Your task to perform on an android device: toggle javascript in the chrome app Image 0: 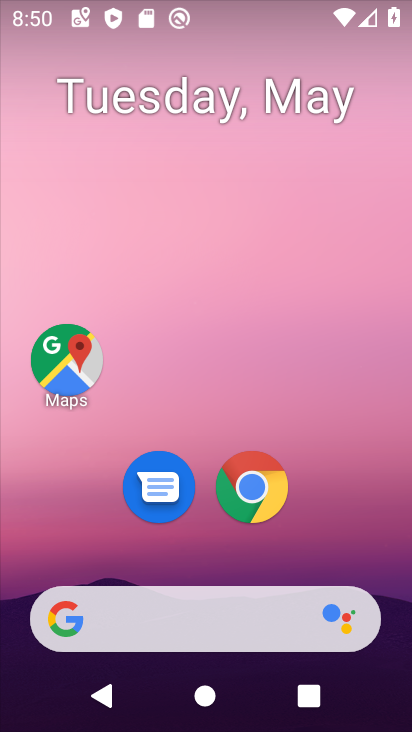
Step 0: drag from (381, 531) to (355, 106)
Your task to perform on an android device: toggle javascript in the chrome app Image 1: 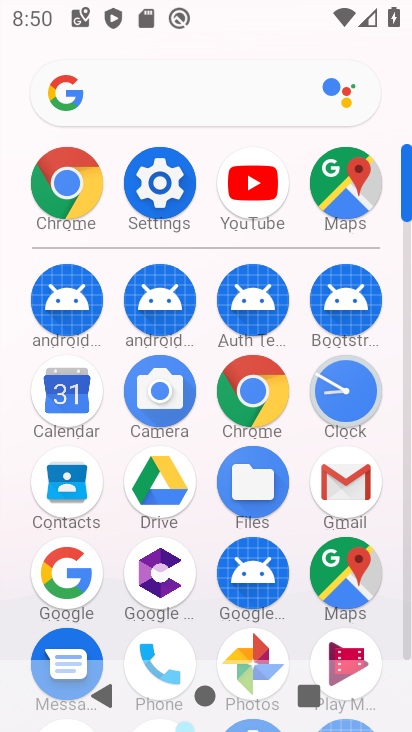
Step 1: click (275, 401)
Your task to perform on an android device: toggle javascript in the chrome app Image 2: 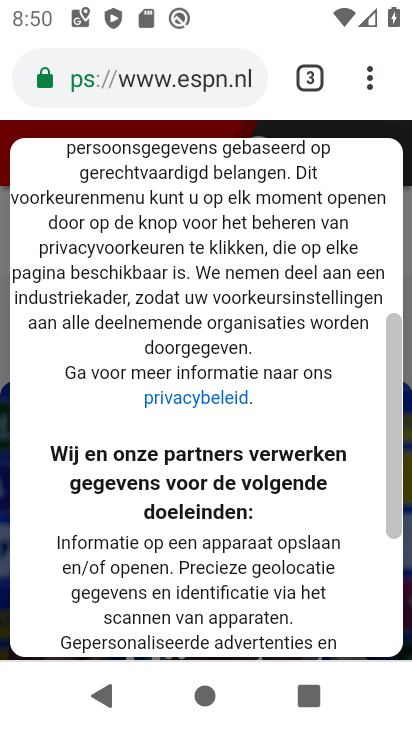
Step 2: click (368, 90)
Your task to perform on an android device: toggle javascript in the chrome app Image 3: 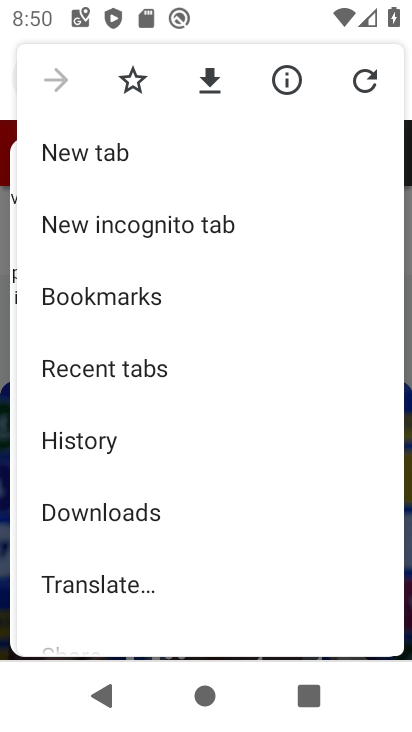
Step 3: drag from (337, 388) to (335, 308)
Your task to perform on an android device: toggle javascript in the chrome app Image 4: 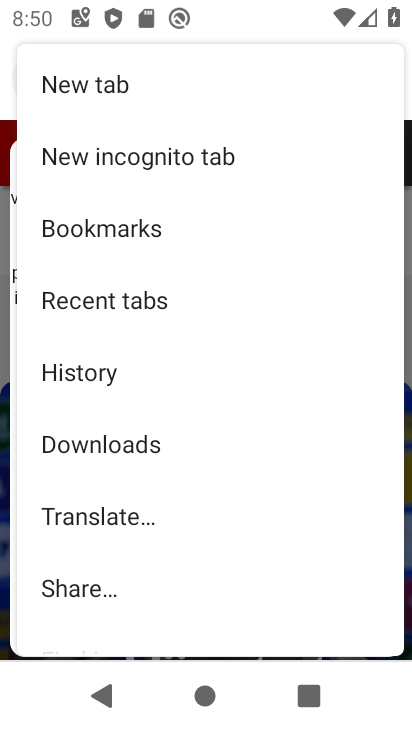
Step 4: drag from (338, 443) to (334, 348)
Your task to perform on an android device: toggle javascript in the chrome app Image 5: 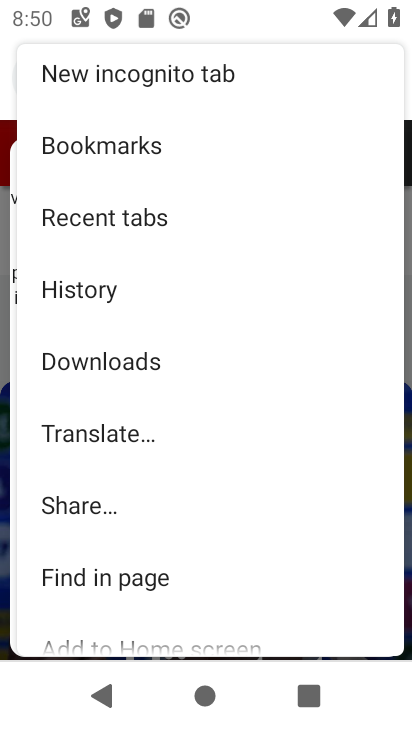
Step 5: drag from (328, 455) to (328, 355)
Your task to perform on an android device: toggle javascript in the chrome app Image 6: 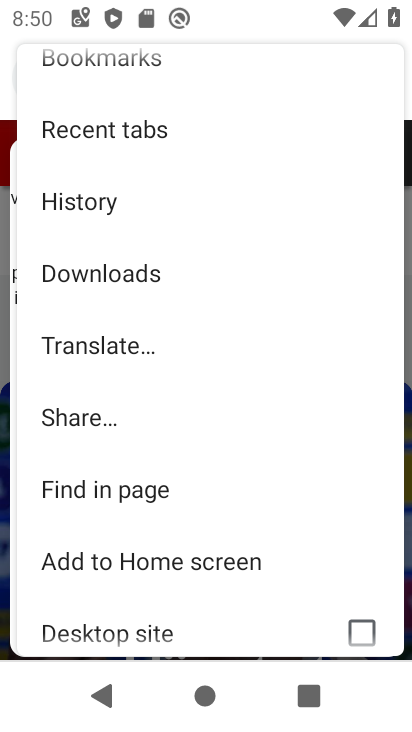
Step 6: drag from (320, 488) to (317, 369)
Your task to perform on an android device: toggle javascript in the chrome app Image 7: 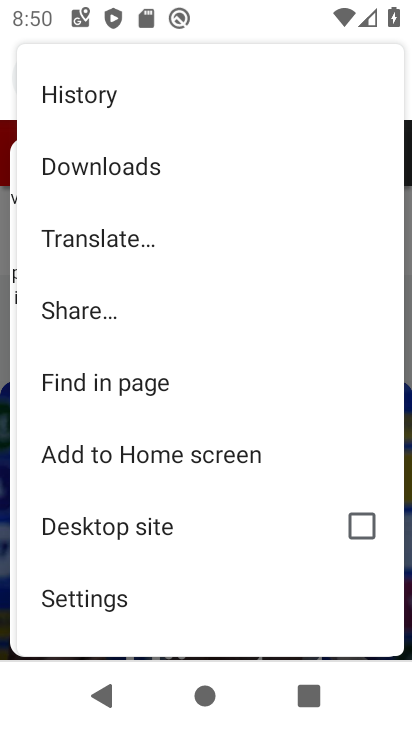
Step 7: drag from (313, 495) to (317, 391)
Your task to perform on an android device: toggle javascript in the chrome app Image 8: 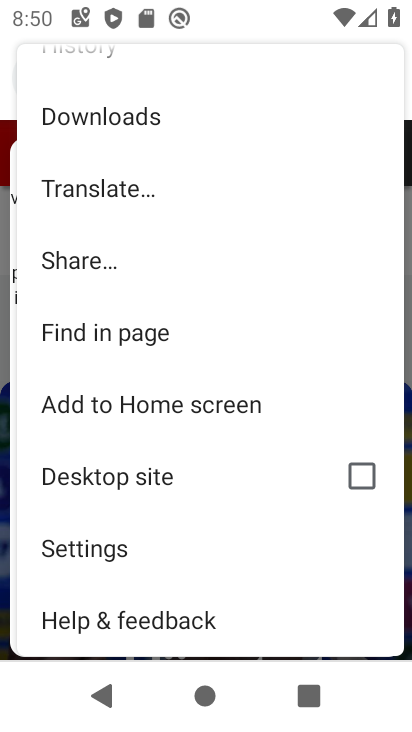
Step 8: click (144, 555)
Your task to perform on an android device: toggle javascript in the chrome app Image 9: 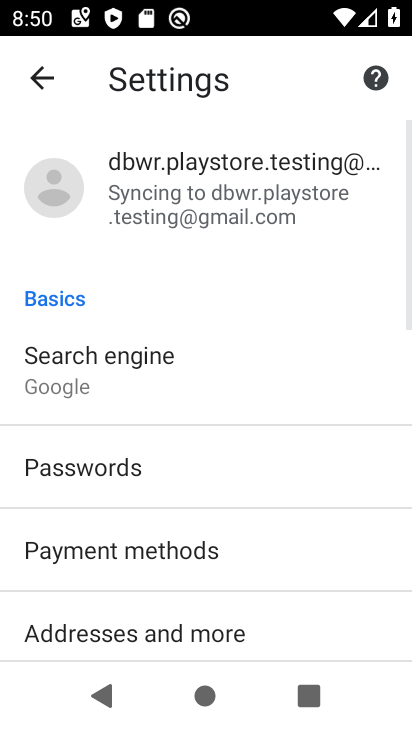
Step 9: drag from (319, 553) to (319, 473)
Your task to perform on an android device: toggle javascript in the chrome app Image 10: 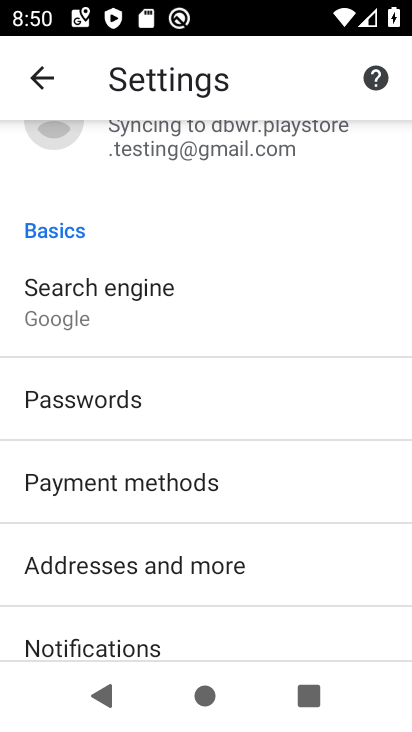
Step 10: drag from (334, 545) to (337, 441)
Your task to perform on an android device: toggle javascript in the chrome app Image 11: 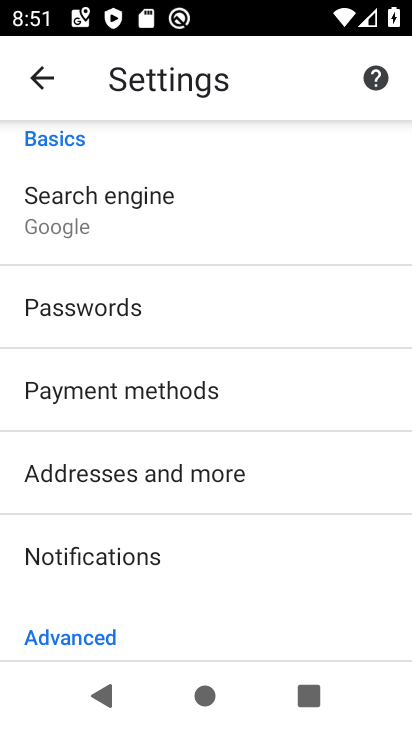
Step 11: drag from (336, 527) to (339, 451)
Your task to perform on an android device: toggle javascript in the chrome app Image 12: 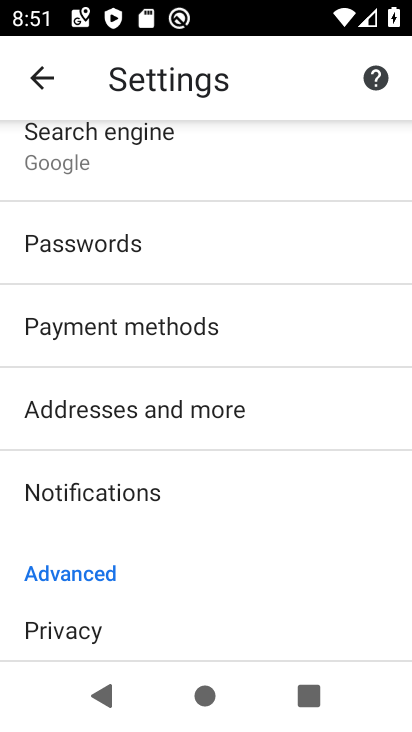
Step 12: drag from (337, 548) to (344, 445)
Your task to perform on an android device: toggle javascript in the chrome app Image 13: 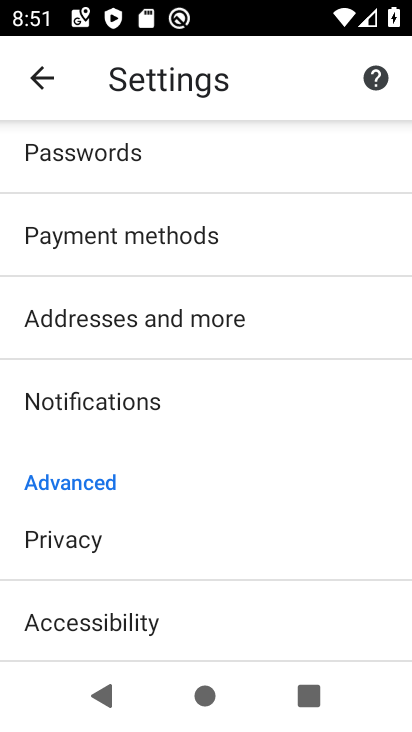
Step 13: drag from (357, 559) to (349, 456)
Your task to perform on an android device: toggle javascript in the chrome app Image 14: 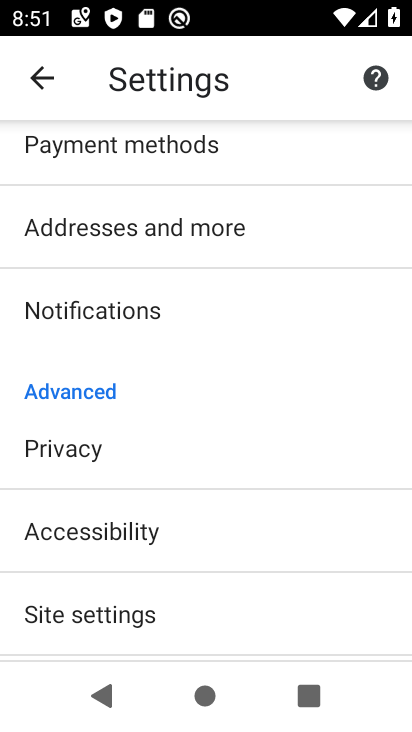
Step 14: drag from (358, 573) to (369, 470)
Your task to perform on an android device: toggle javascript in the chrome app Image 15: 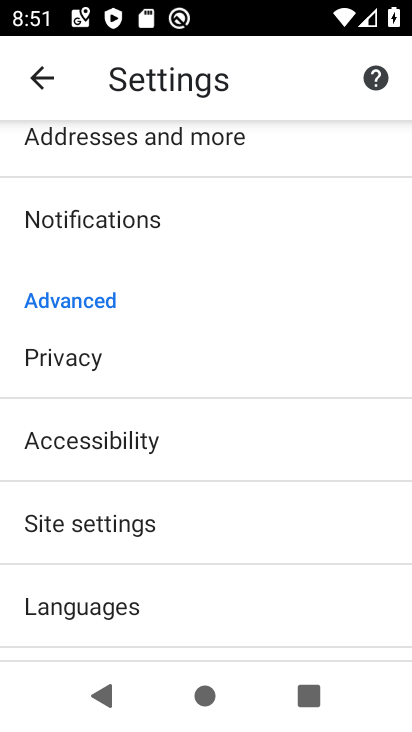
Step 15: drag from (367, 593) to (368, 488)
Your task to perform on an android device: toggle javascript in the chrome app Image 16: 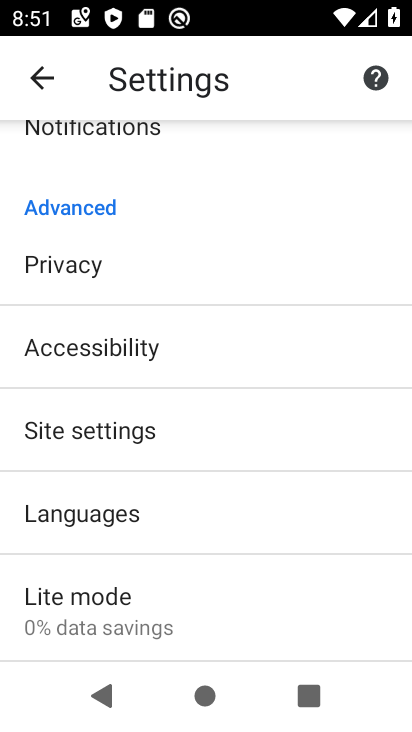
Step 16: click (219, 428)
Your task to perform on an android device: toggle javascript in the chrome app Image 17: 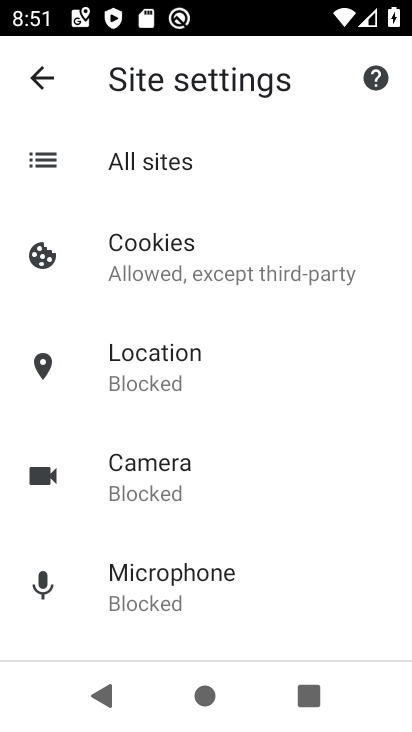
Step 17: drag from (331, 523) to (329, 439)
Your task to perform on an android device: toggle javascript in the chrome app Image 18: 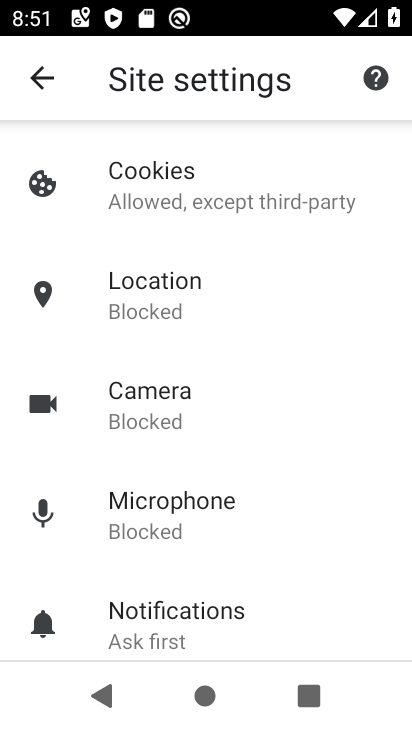
Step 18: drag from (323, 541) to (325, 439)
Your task to perform on an android device: toggle javascript in the chrome app Image 19: 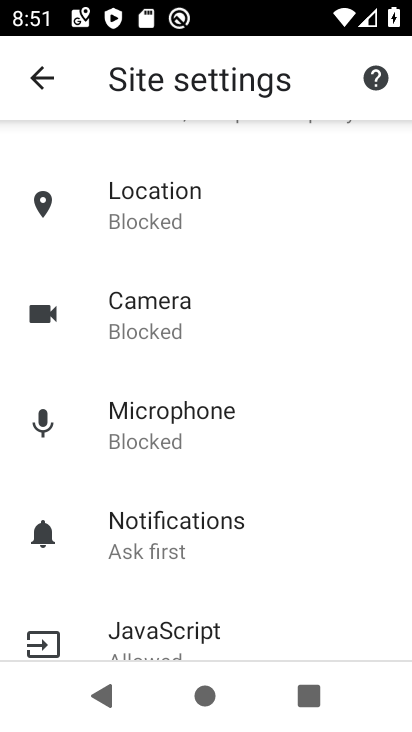
Step 19: drag from (345, 547) to (334, 444)
Your task to perform on an android device: toggle javascript in the chrome app Image 20: 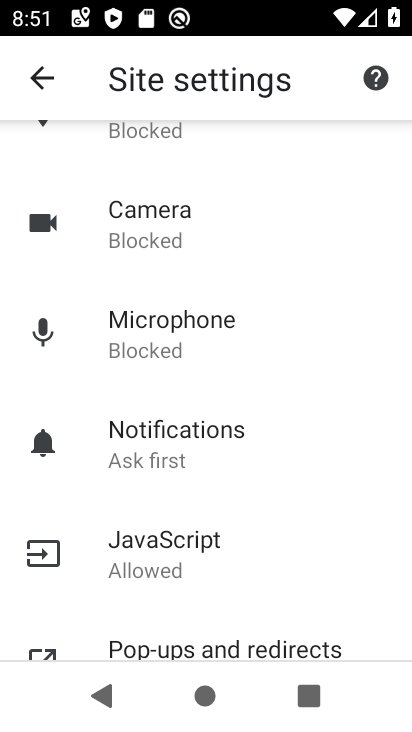
Step 20: drag from (348, 550) to (345, 420)
Your task to perform on an android device: toggle javascript in the chrome app Image 21: 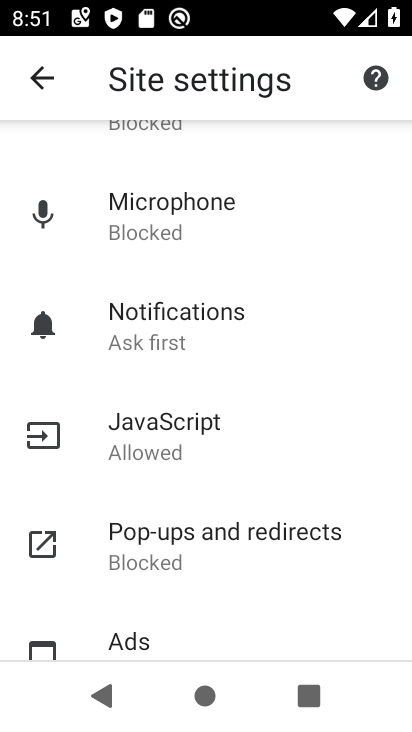
Step 21: click (191, 438)
Your task to perform on an android device: toggle javascript in the chrome app Image 22: 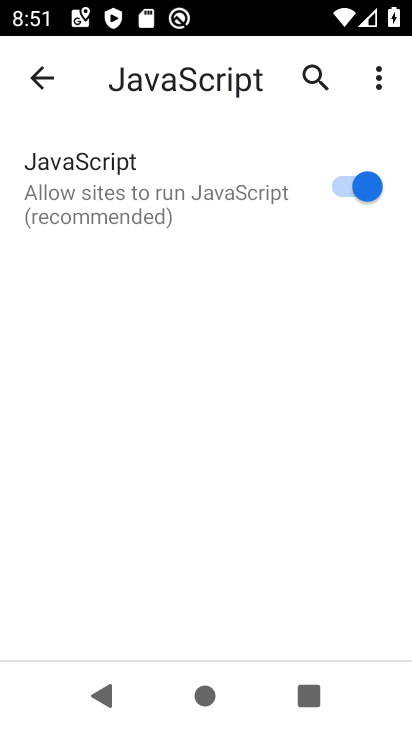
Step 22: click (374, 192)
Your task to perform on an android device: toggle javascript in the chrome app Image 23: 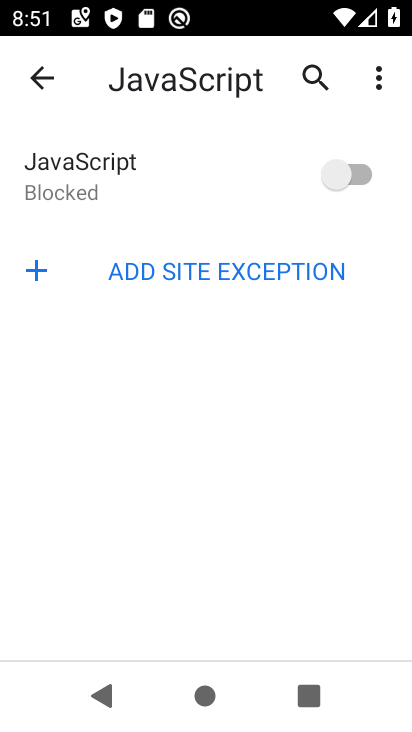
Step 23: task complete